Your task to perform on an android device: Open the phone app and click the voicemail tab. Image 0: 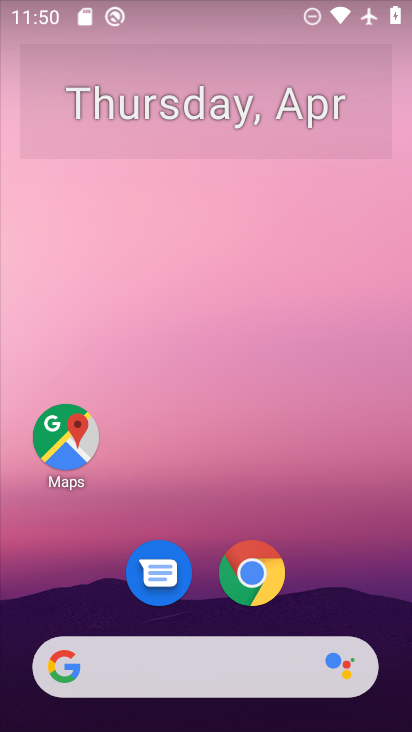
Step 0: drag from (355, 392) to (313, 36)
Your task to perform on an android device: Open the phone app and click the voicemail tab. Image 1: 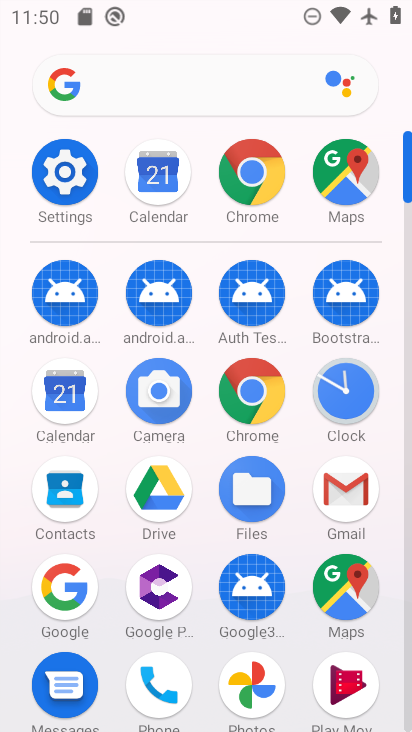
Step 1: click (154, 662)
Your task to perform on an android device: Open the phone app and click the voicemail tab. Image 2: 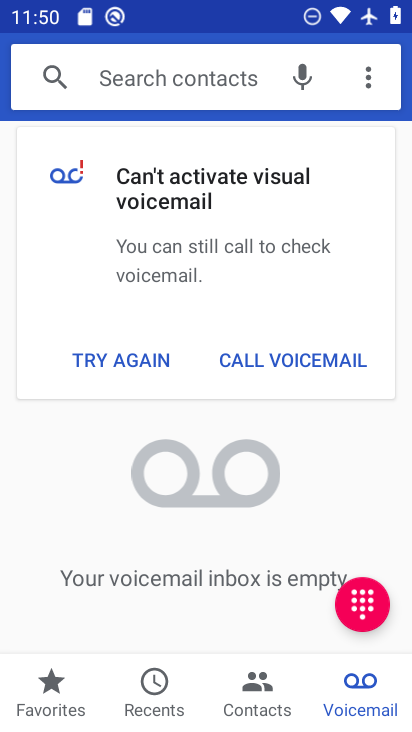
Step 2: click (367, 695)
Your task to perform on an android device: Open the phone app and click the voicemail tab. Image 3: 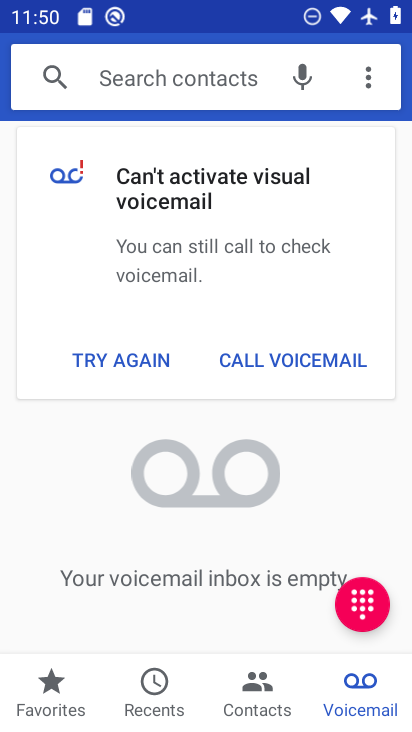
Step 3: task complete